Your task to perform on an android device: Go to display settings Image 0: 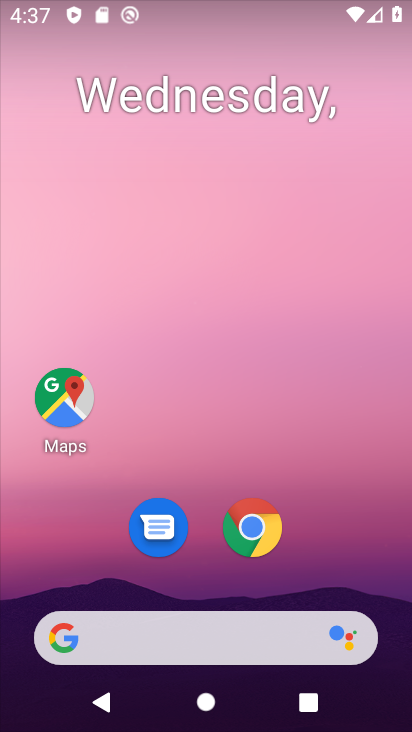
Step 0: drag from (177, 555) to (186, 483)
Your task to perform on an android device: Go to display settings Image 1: 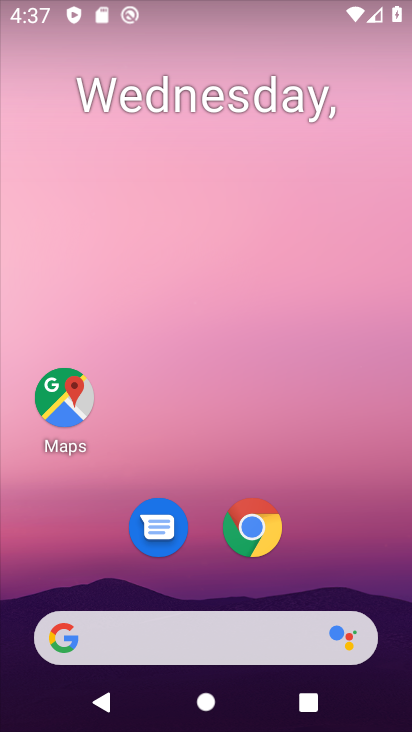
Step 1: drag from (239, 597) to (239, 370)
Your task to perform on an android device: Go to display settings Image 2: 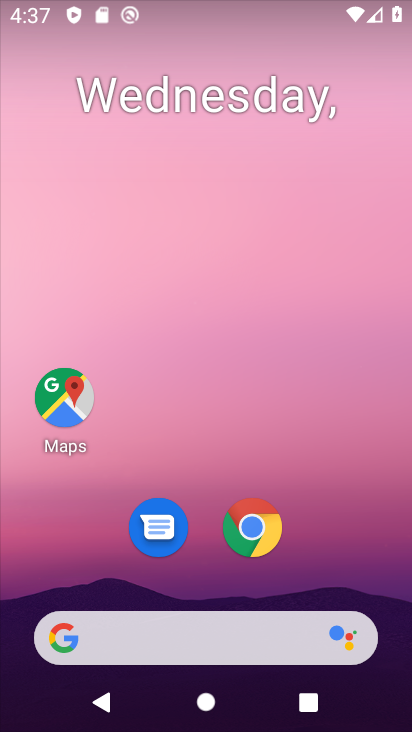
Step 2: drag from (205, 652) to (272, 179)
Your task to perform on an android device: Go to display settings Image 3: 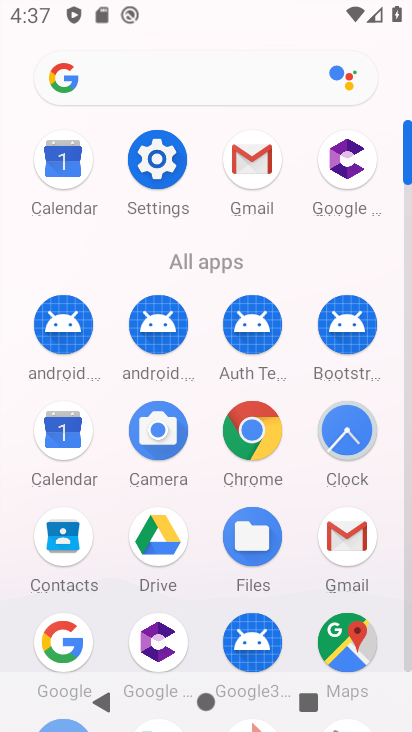
Step 3: drag from (180, 395) to (180, 328)
Your task to perform on an android device: Go to display settings Image 4: 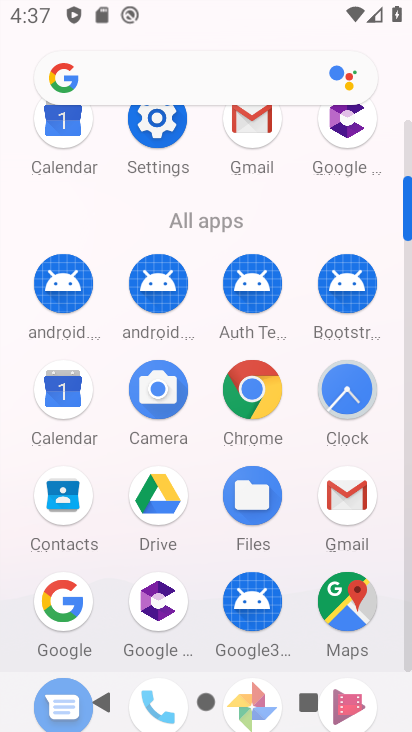
Step 4: drag from (183, 602) to (211, 271)
Your task to perform on an android device: Go to display settings Image 5: 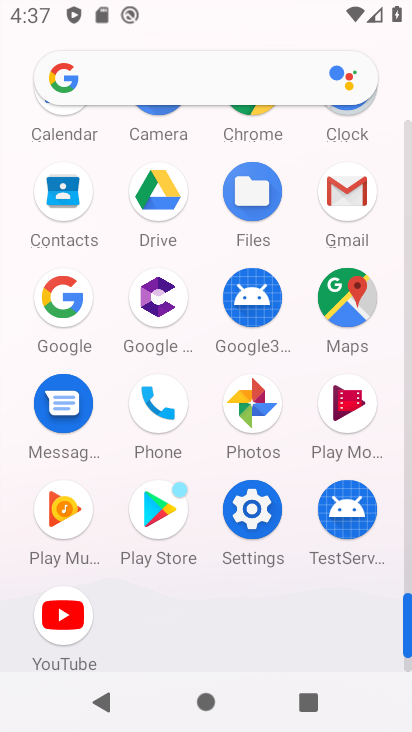
Step 5: drag from (152, 248) to (190, 546)
Your task to perform on an android device: Go to display settings Image 6: 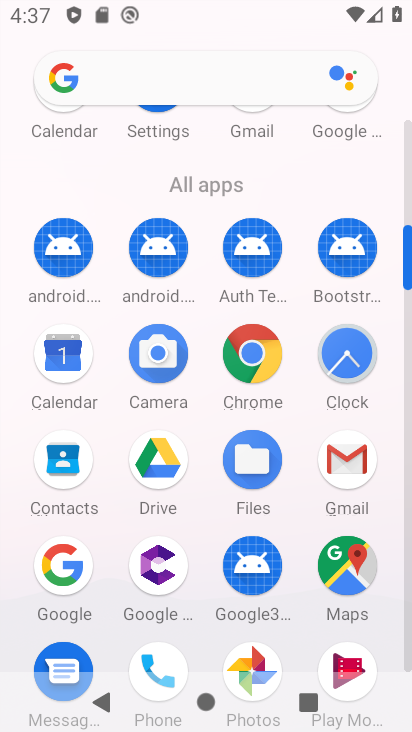
Step 6: drag from (284, 392) to (284, 685)
Your task to perform on an android device: Go to display settings Image 7: 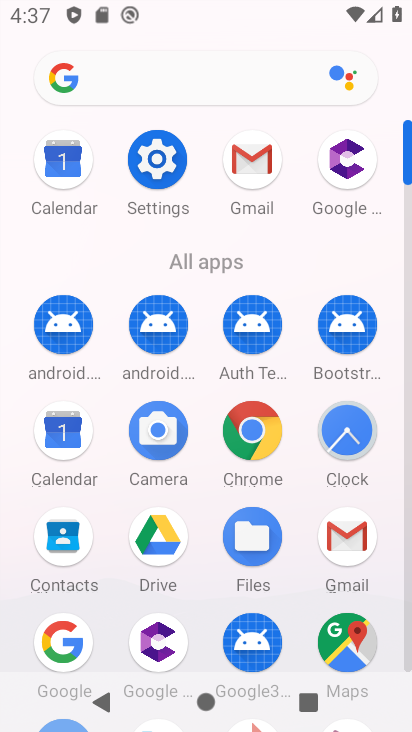
Step 7: click (162, 175)
Your task to perform on an android device: Go to display settings Image 8: 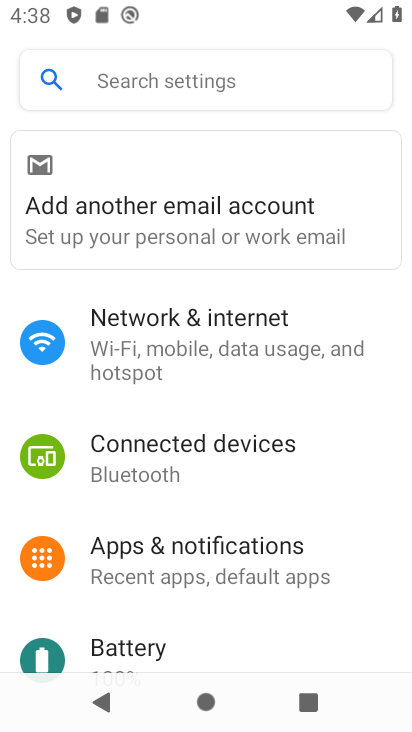
Step 8: drag from (212, 574) to (312, 272)
Your task to perform on an android device: Go to display settings Image 9: 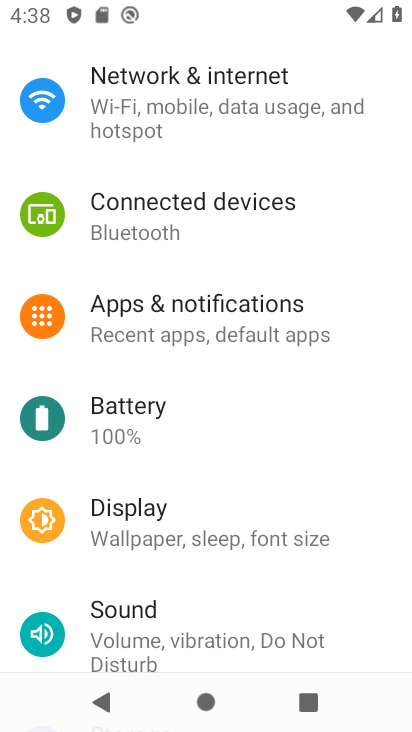
Step 9: click (173, 537)
Your task to perform on an android device: Go to display settings Image 10: 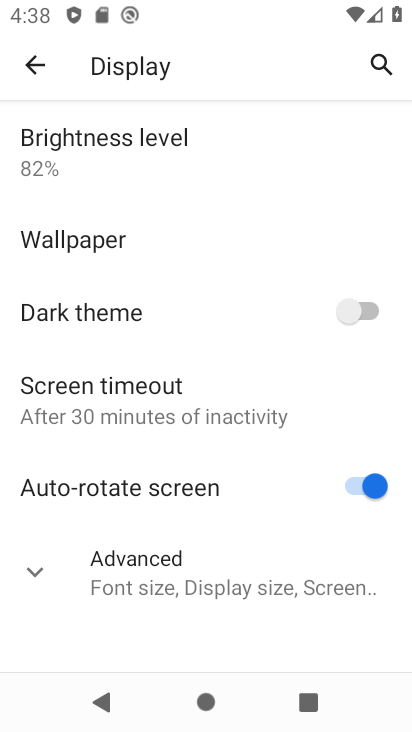
Step 10: task complete